Your task to perform on an android device: Show me popular videos on Youtube Image 0: 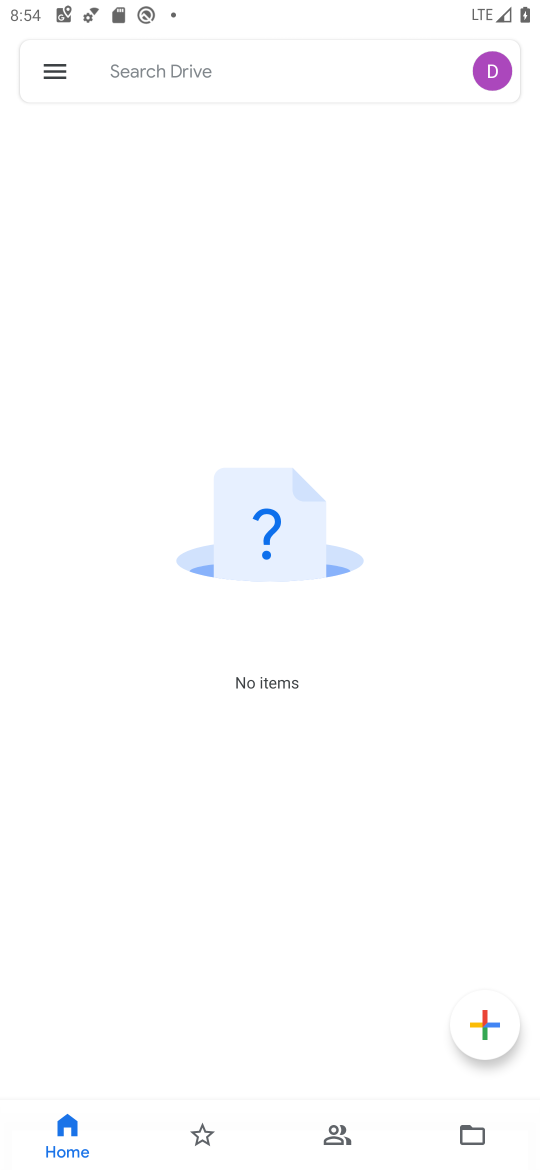
Step 0: press home button
Your task to perform on an android device: Show me popular videos on Youtube Image 1: 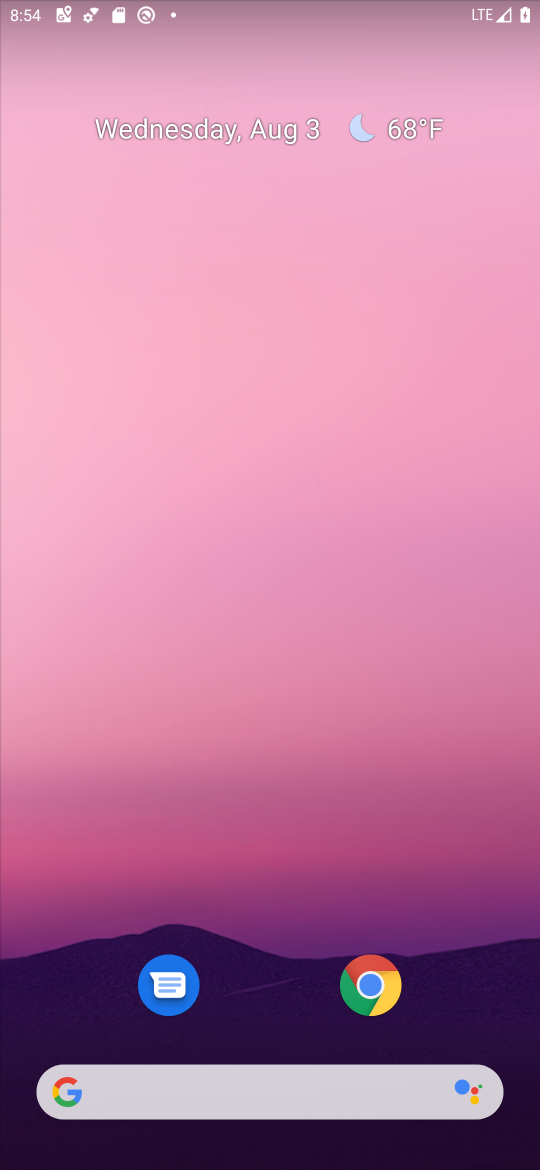
Step 1: drag from (260, 939) to (306, 324)
Your task to perform on an android device: Show me popular videos on Youtube Image 2: 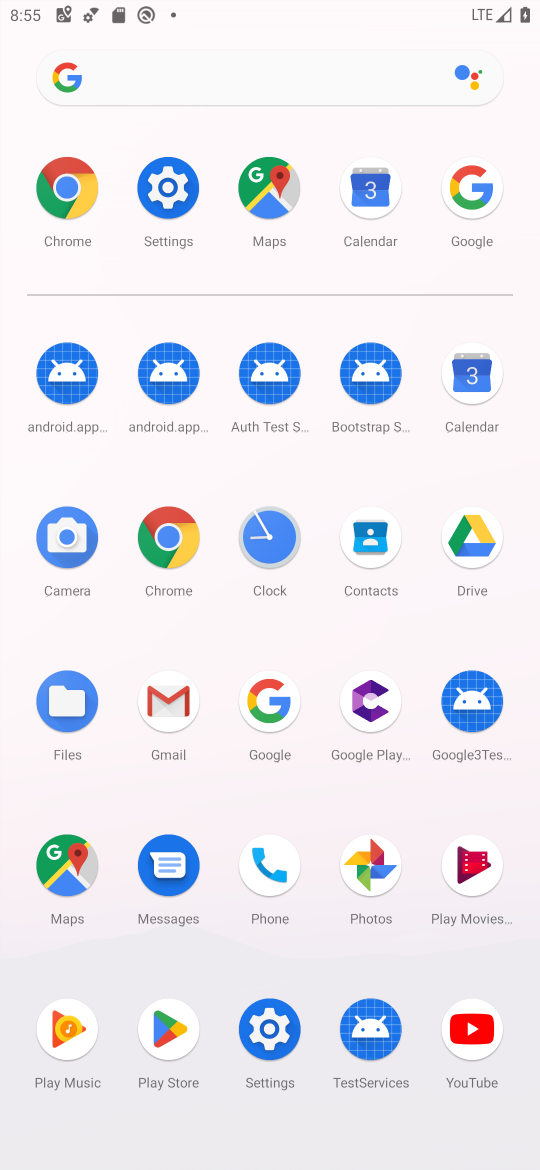
Step 2: click (452, 999)
Your task to perform on an android device: Show me popular videos on Youtube Image 3: 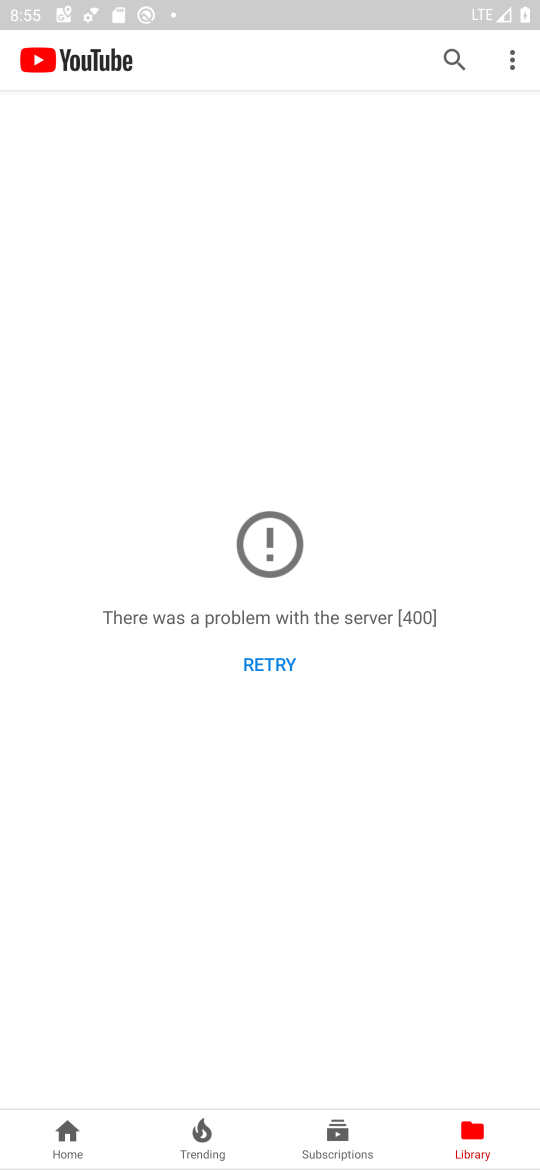
Step 3: click (443, 63)
Your task to perform on an android device: Show me popular videos on Youtube Image 4: 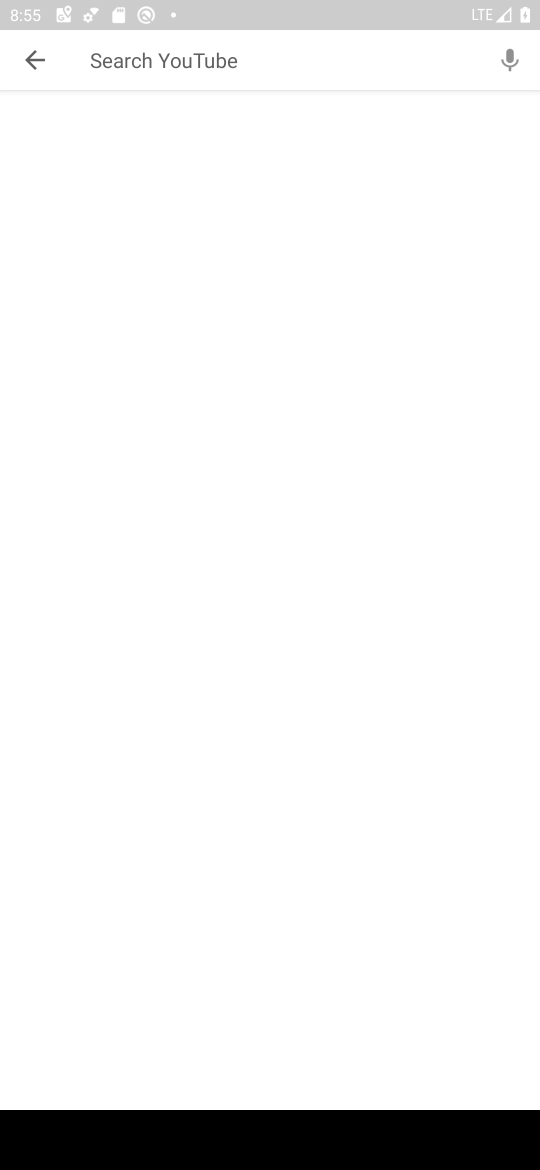
Step 4: click (302, 60)
Your task to perform on an android device: Show me popular videos on Youtube Image 5: 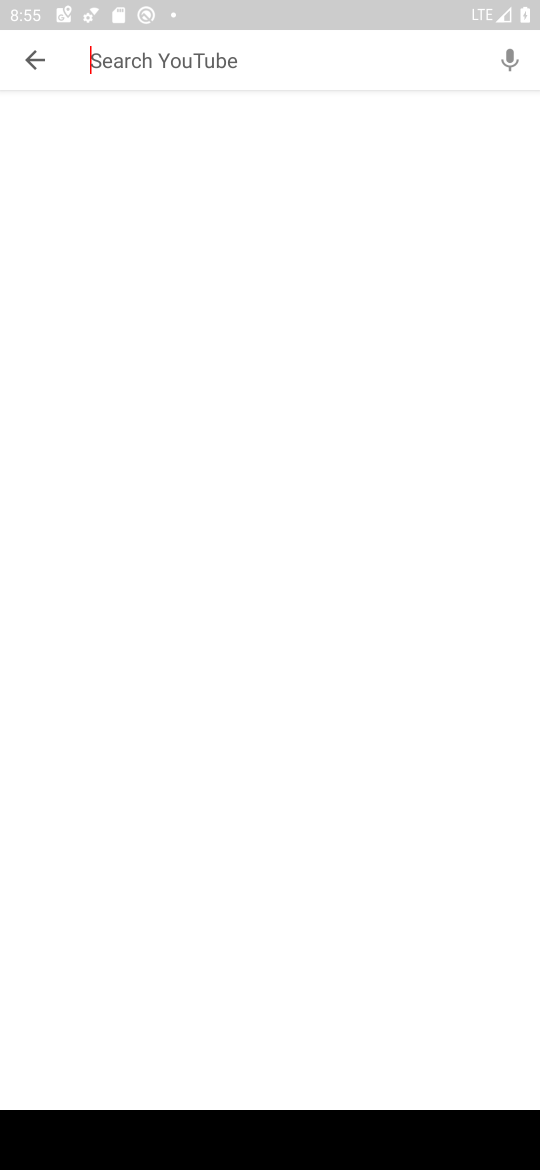
Step 5: type "popular videos"
Your task to perform on an android device: Show me popular videos on Youtube Image 6: 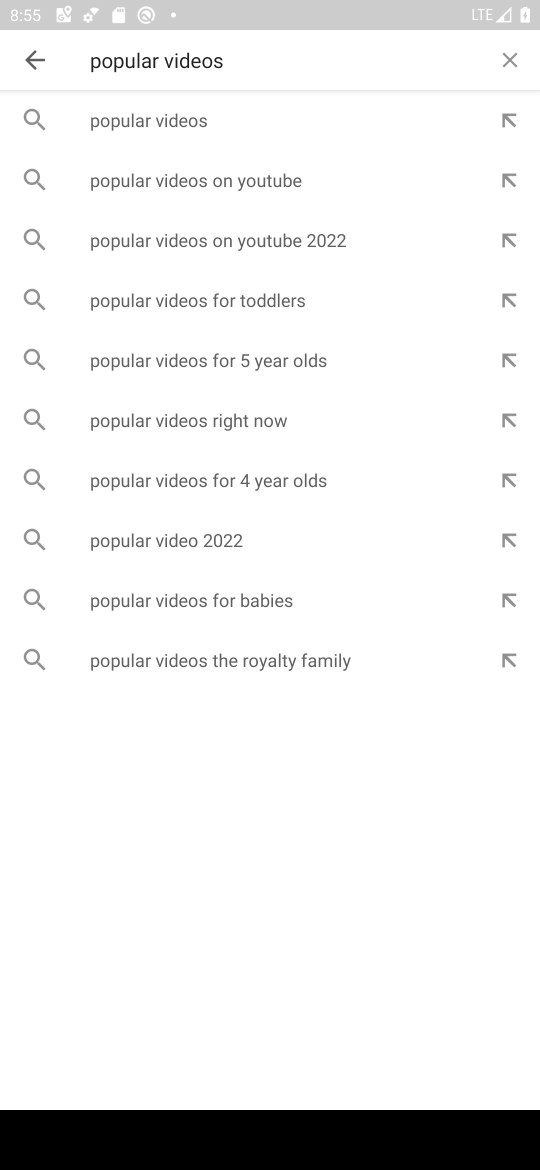
Step 6: click (242, 129)
Your task to perform on an android device: Show me popular videos on Youtube Image 7: 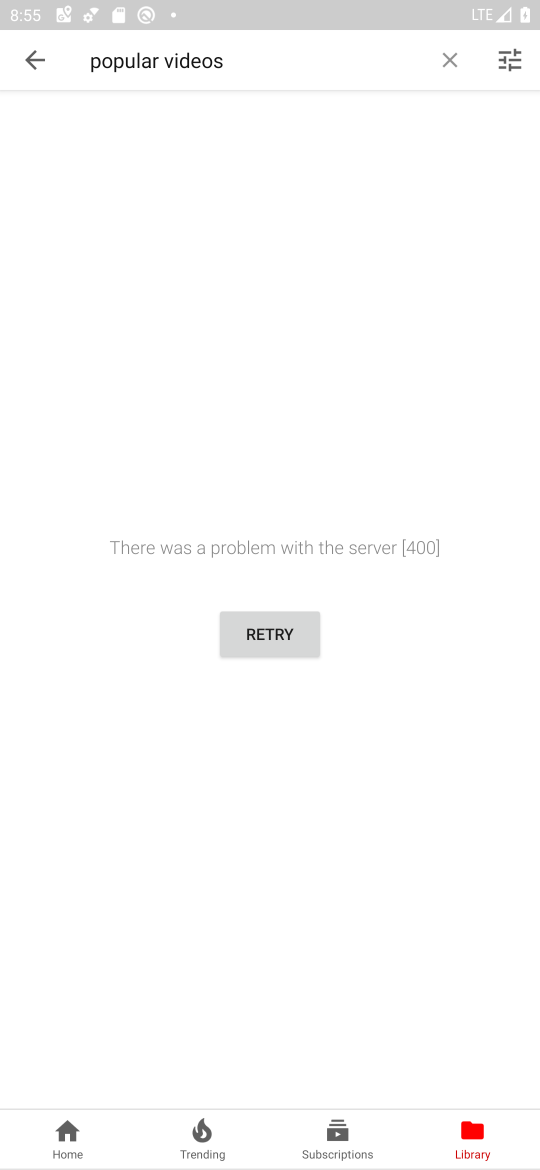
Step 7: task complete